Your task to perform on an android device: When is my next appointment? Image 0: 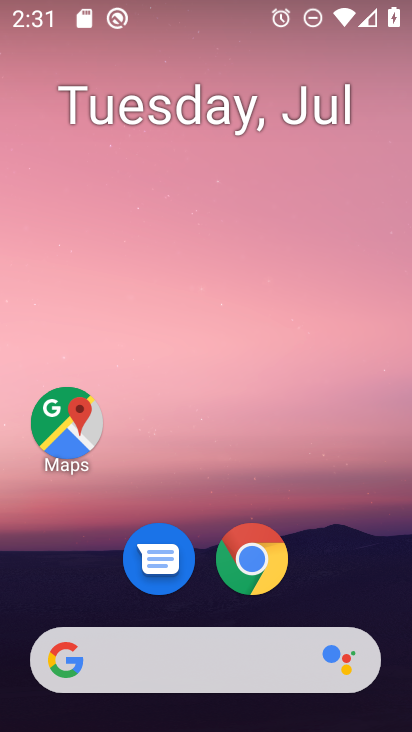
Step 0: drag from (363, 581) to (314, 159)
Your task to perform on an android device: When is my next appointment? Image 1: 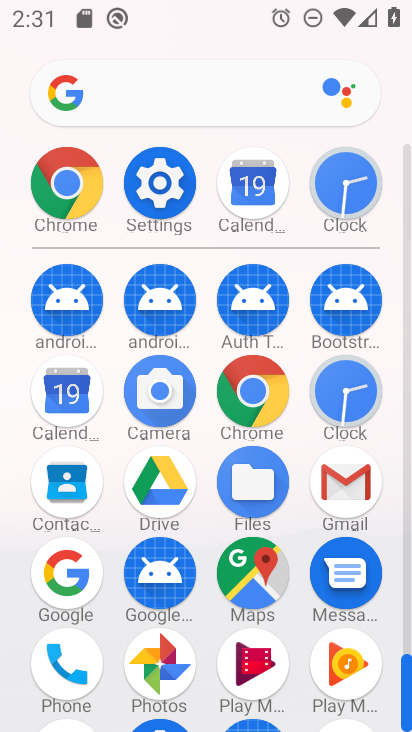
Step 1: click (78, 400)
Your task to perform on an android device: When is my next appointment? Image 2: 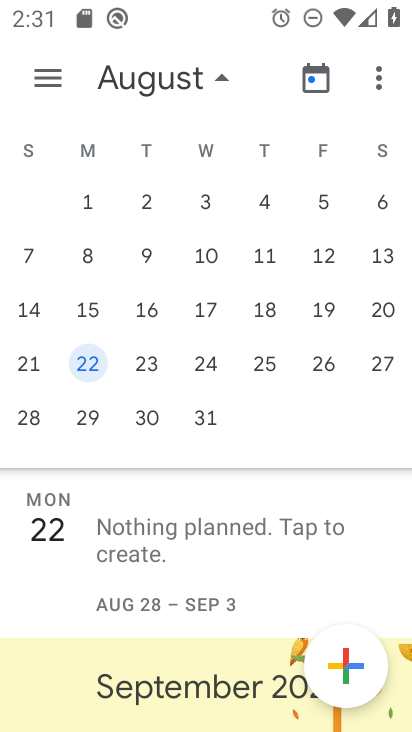
Step 2: drag from (173, 557) to (182, 225)
Your task to perform on an android device: When is my next appointment? Image 3: 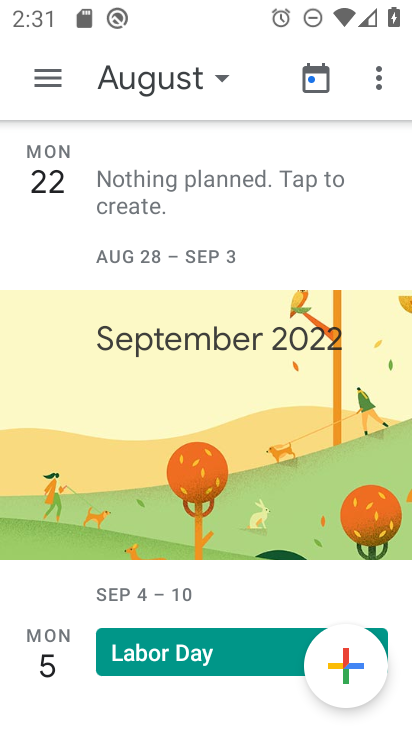
Step 3: drag from (182, 225) to (184, 322)
Your task to perform on an android device: When is my next appointment? Image 4: 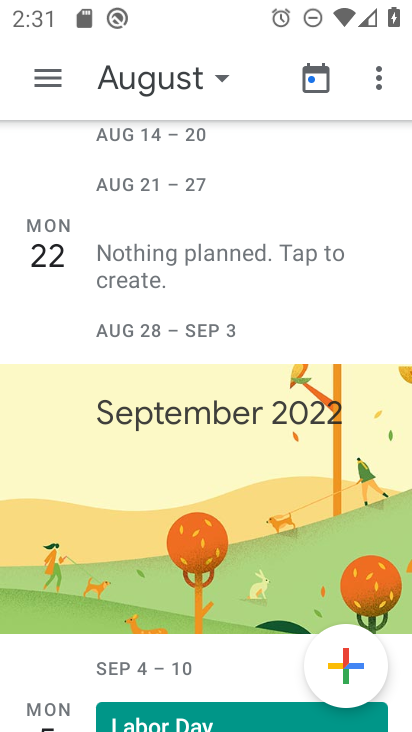
Step 4: drag from (191, 237) to (200, 384)
Your task to perform on an android device: When is my next appointment? Image 5: 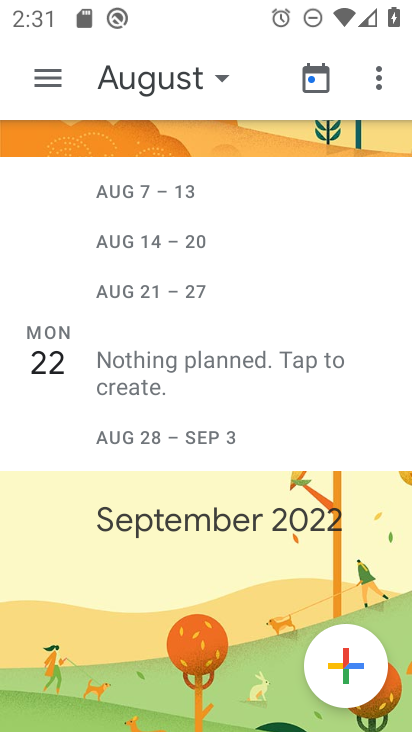
Step 5: drag from (224, 264) to (234, 369)
Your task to perform on an android device: When is my next appointment? Image 6: 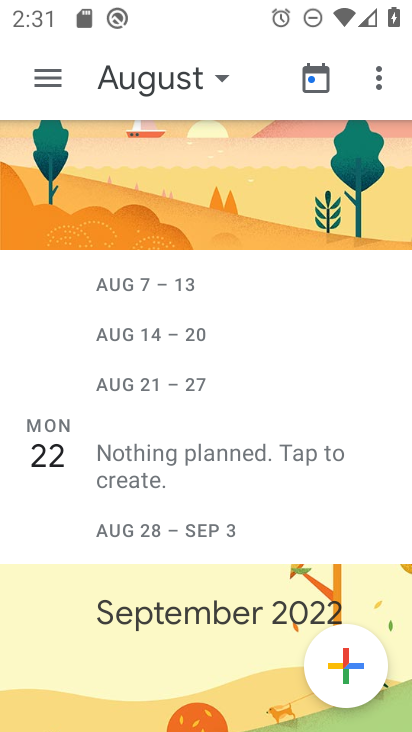
Step 6: drag from (220, 199) to (221, 390)
Your task to perform on an android device: When is my next appointment? Image 7: 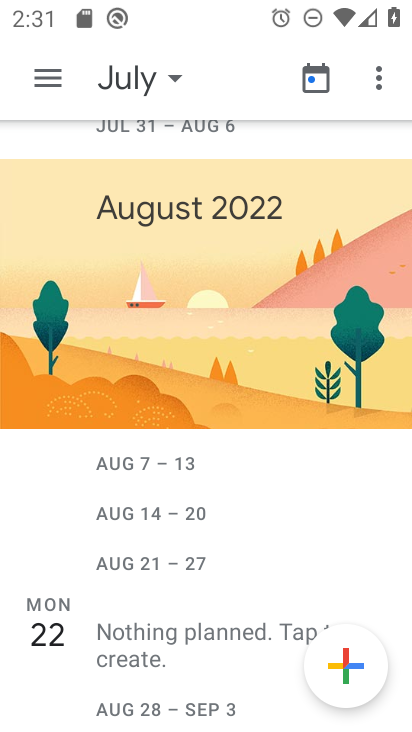
Step 7: drag from (221, 207) to (218, 412)
Your task to perform on an android device: When is my next appointment? Image 8: 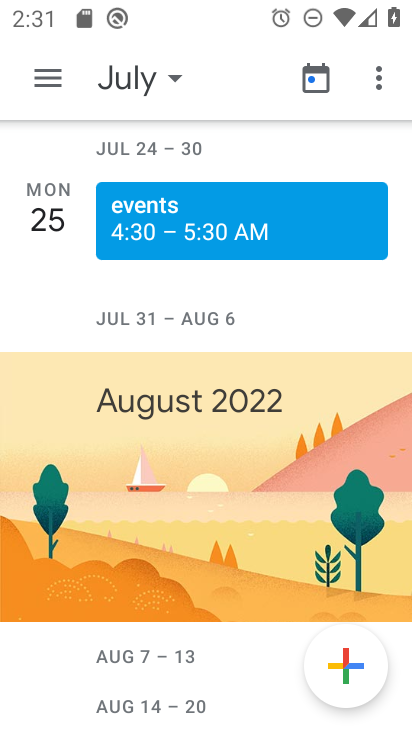
Step 8: drag from (177, 164) to (193, 401)
Your task to perform on an android device: When is my next appointment? Image 9: 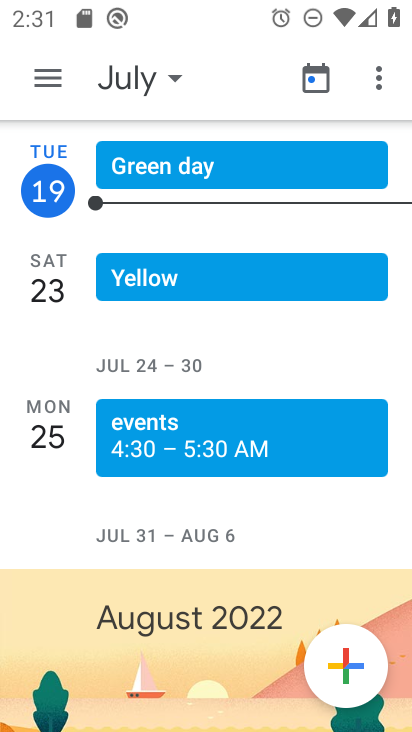
Step 9: click (210, 286)
Your task to perform on an android device: When is my next appointment? Image 10: 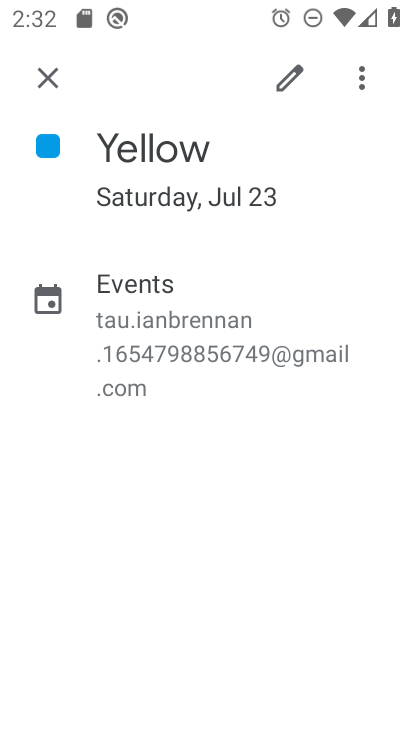
Step 10: task complete